Your task to perform on an android device: Open ESPN.com Image 0: 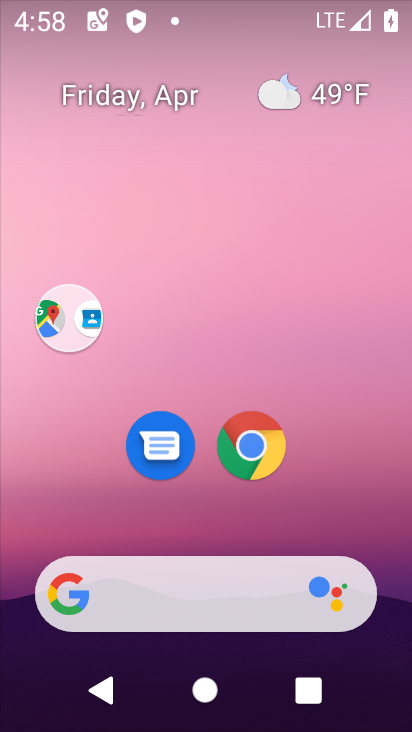
Step 0: drag from (363, 326) to (383, 61)
Your task to perform on an android device: Open ESPN.com Image 1: 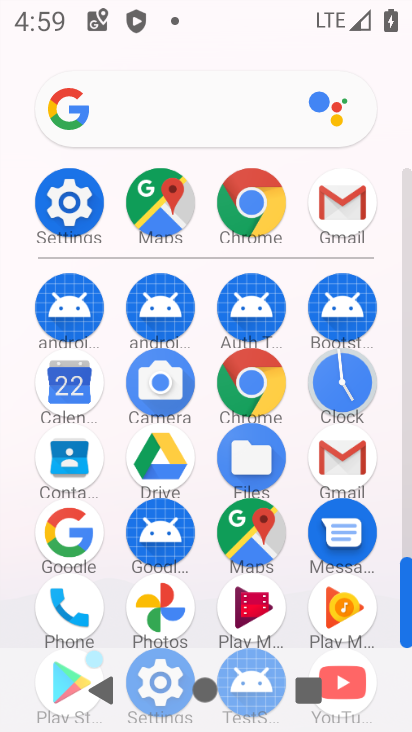
Step 1: click (240, 394)
Your task to perform on an android device: Open ESPN.com Image 2: 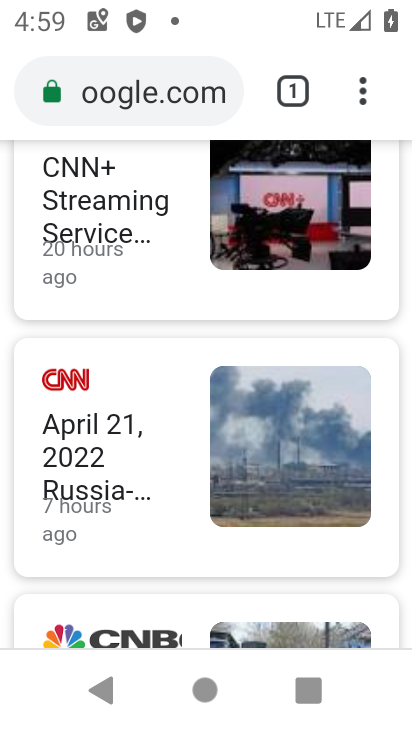
Step 2: click (179, 90)
Your task to perform on an android device: Open ESPN.com Image 3: 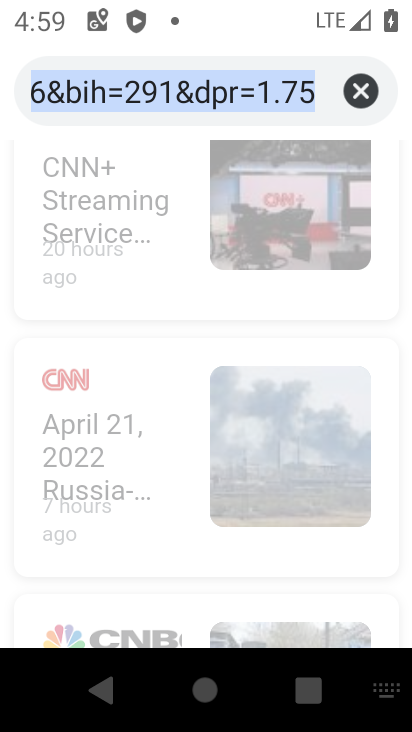
Step 3: type "espn.com"
Your task to perform on an android device: Open ESPN.com Image 4: 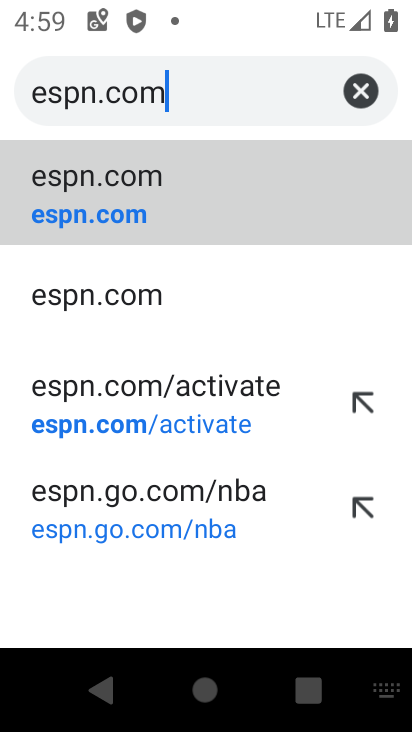
Step 4: click (94, 185)
Your task to perform on an android device: Open ESPN.com Image 5: 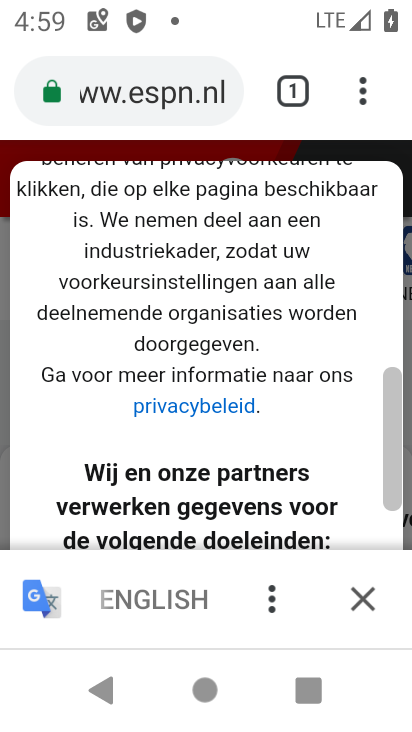
Step 5: task complete